Your task to perform on an android device: turn pop-ups off in chrome Image 0: 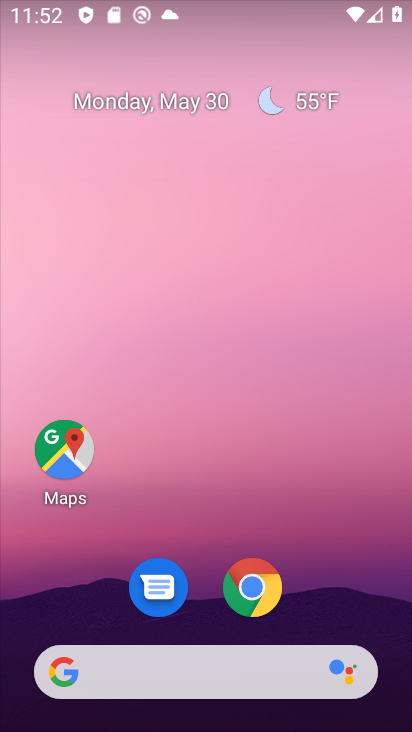
Step 0: click (260, 579)
Your task to perform on an android device: turn pop-ups off in chrome Image 1: 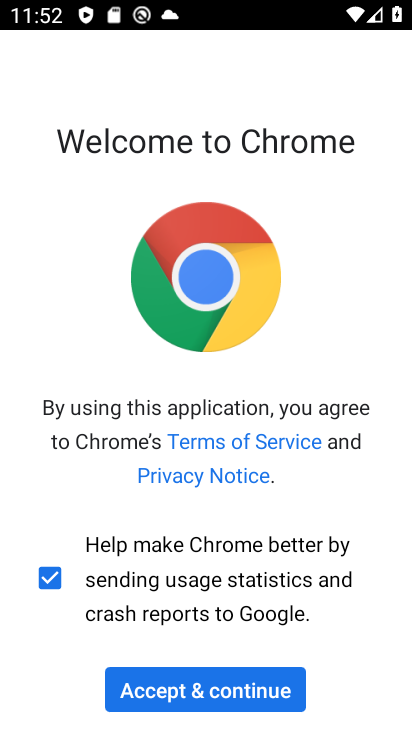
Step 1: click (195, 695)
Your task to perform on an android device: turn pop-ups off in chrome Image 2: 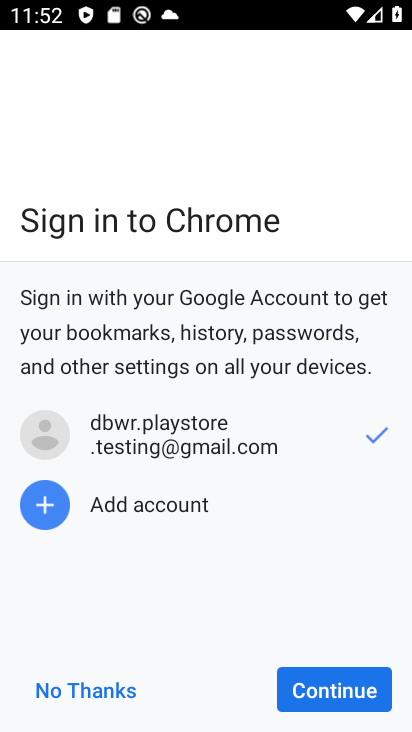
Step 2: click (314, 683)
Your task to perform on an android device: turn pop-ups off in chrome Image 3: 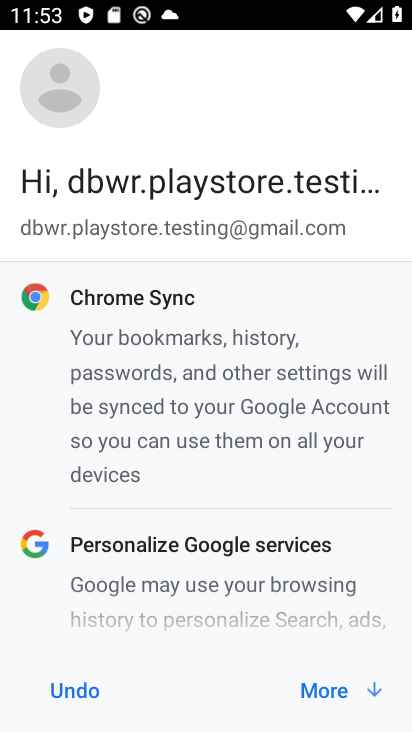
Step 3: click (315, 684)
Your task to perform on an android device: turn pop-ups off in chrome Image 4: 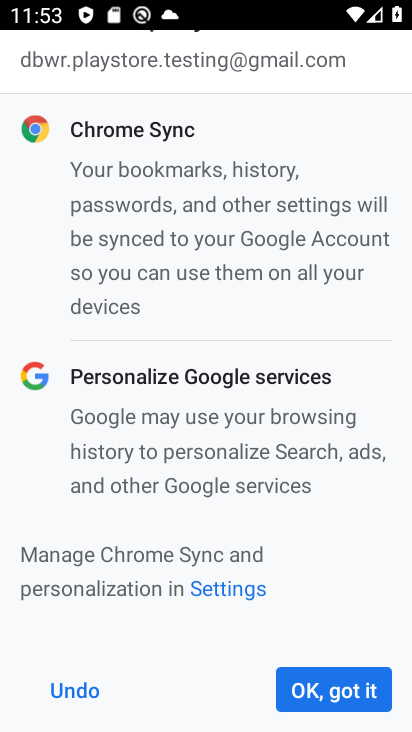
Step 4: click (315, 684)
Your task to perform on an android device: turn pop-ups off in chrome Image 5: 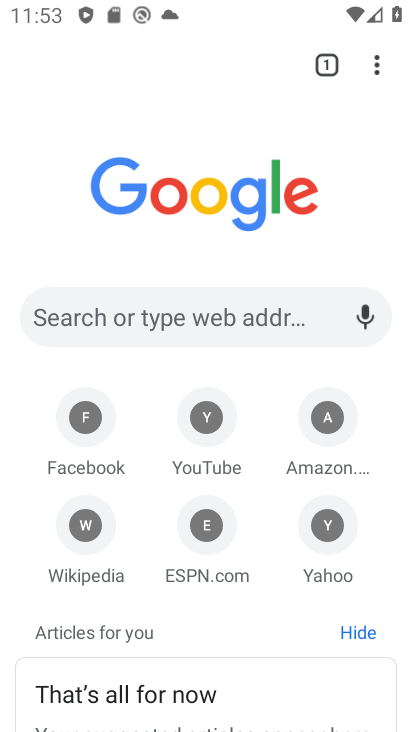
Step 5: click (374, 72)
Your task to perform on an android device: turn pop-ups off in chrome Image 6: 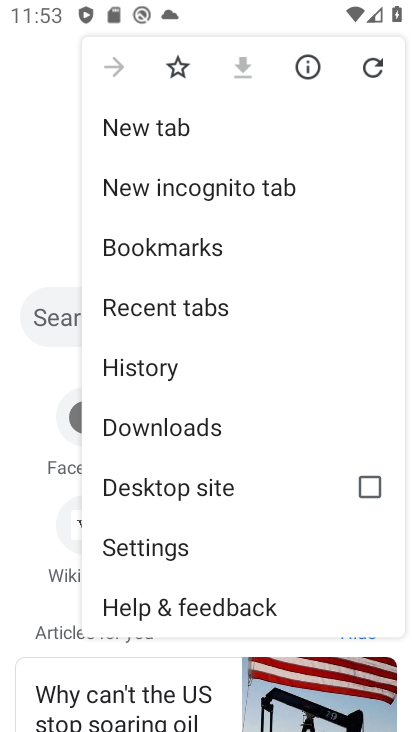
Step 6: click (170, 546)
Your task to perform on an android device: turn pop-ups off in chrome Image 7: 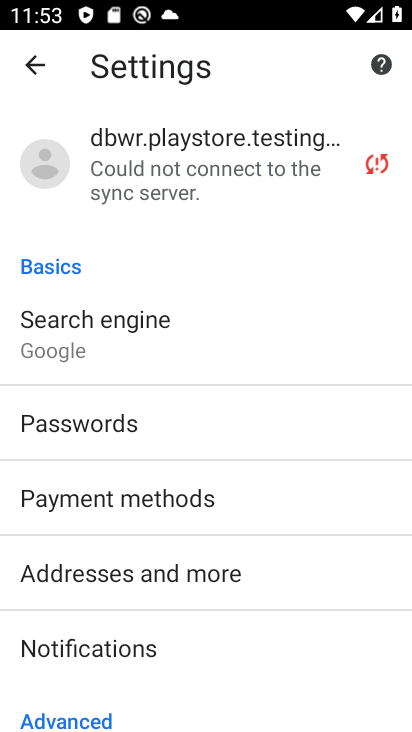
Step 7: drag from (194, 653) to (259, 247)
Your task to perform on an android device: turn pop-ups off in chrome Image 8: 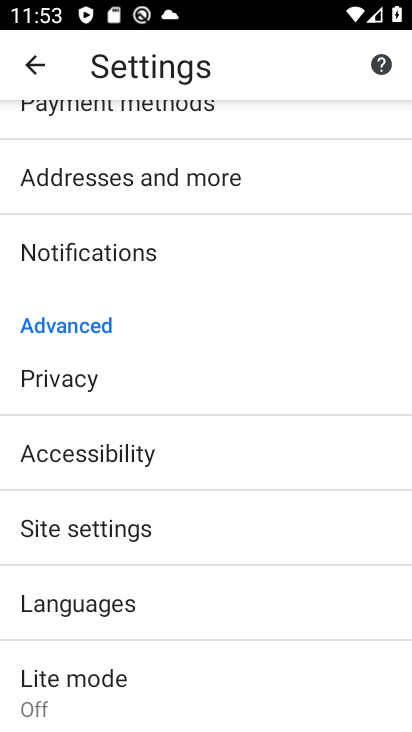
Step 8: click (78, 522)
Your task to perform on an android device: turn pop-ups off in chrome Image 9: 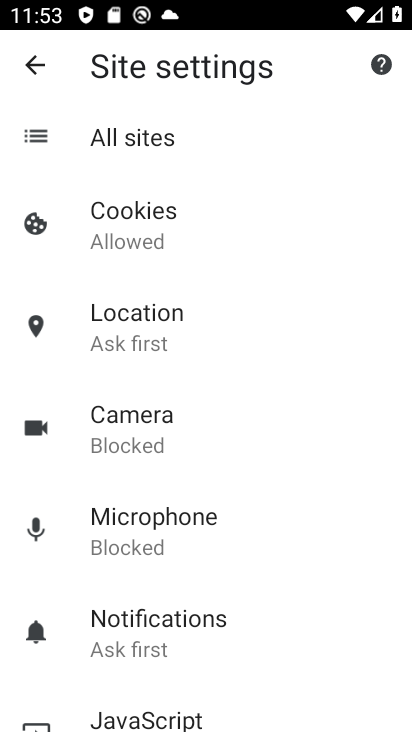
Step 9: drag from (240, 656) to (250, 300)
Your task to perform on an android device: turn pop-ups off in chrome Image 10: 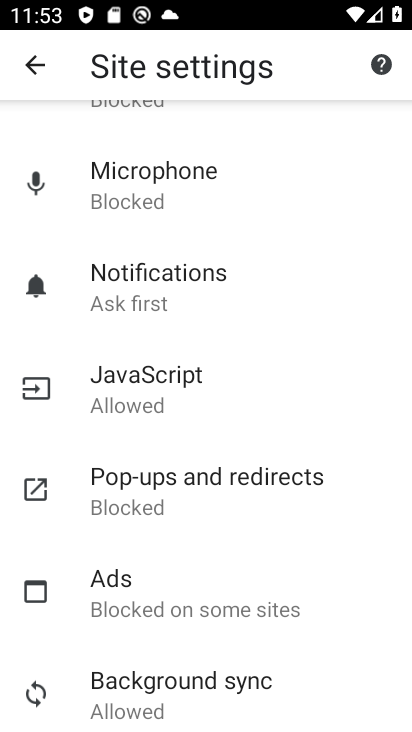
Step 10: click (209, 478)
Your task to perform on an android device: turn pop-ups off in chrome Image 11: 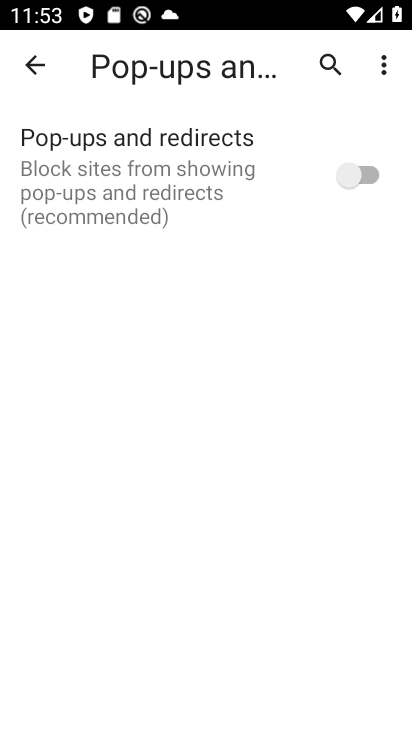
Step 11: task complete